Your task to perform on an android device: turn off improve location accuracy Image 0: 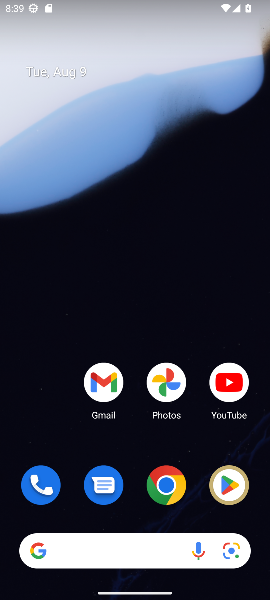
Step 0: drag from (176, 452) to (114, 34)
Your task to perform on an android device: turn off improve location accuracy Image 1: 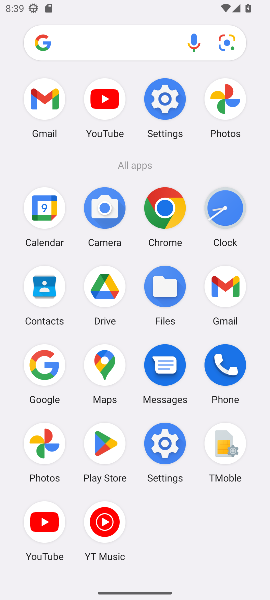
Step 1: click (170, 114)
Your task to perform on an android device: turn off improve location accuracy Image 2: 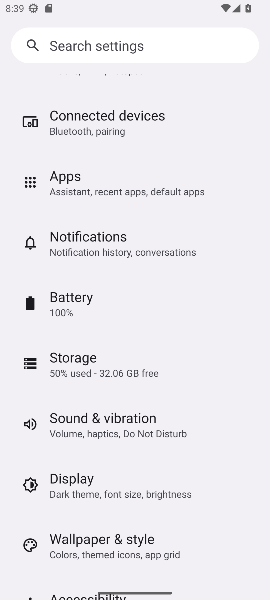
Step 2: drag from (215, 506) to (116, 231)
Your task to perform on an android device: turn off improve location accuracy Image 3: 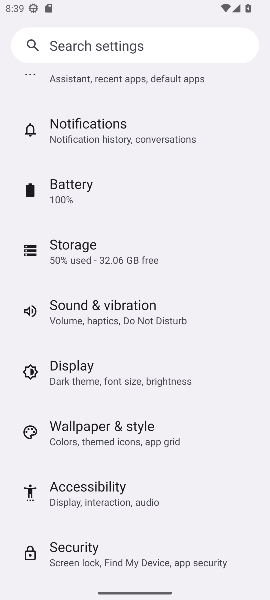
Step 3: drag from (174, 460) to (140, 153)
Your task to perform on an android device: turn off improve location accuracy Image 4: 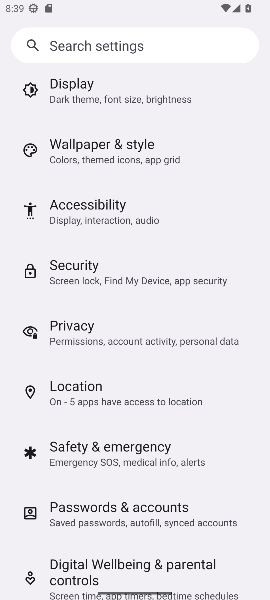
Step 4: click (148, 401)
Your task to perform on an android device: turn off improve location accuracy Image 5: 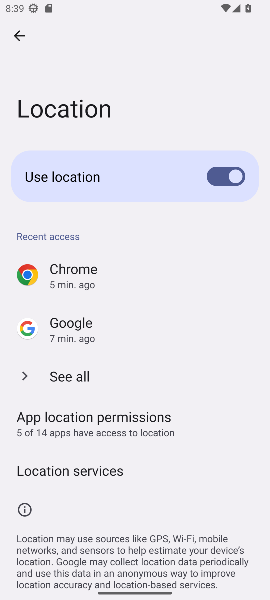
Step 5: click (113, 467)
Your task to perform on an android device: turn off improve location accuracy Image 6: 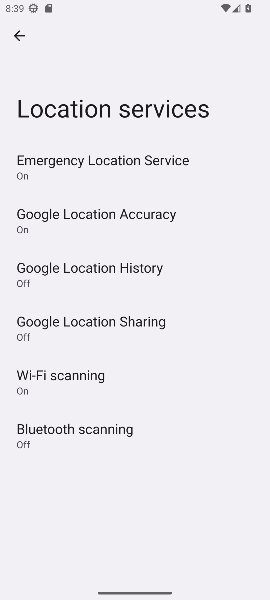
Step 6: click (106, 217)
Your task to perform on an android device: turn off improve location accuracy Image 7: 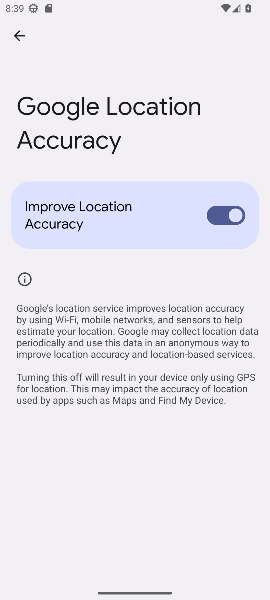
Step 7: click (237, 215)
Your task to perform on an android device: turn off improve location accuracy Image 8: 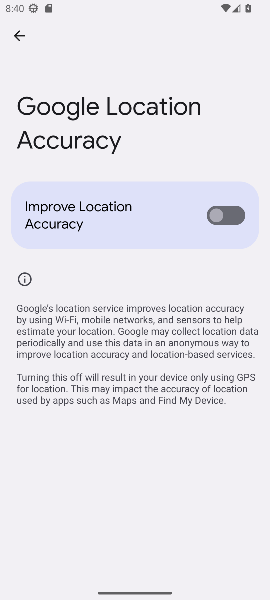
Step 8: task complete